Your task to perform on an android device: set default search engine in the chrome app Image 0: 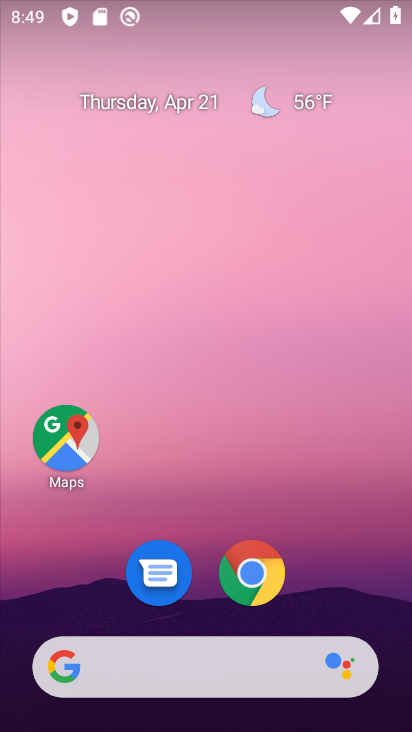
Step 0: click (260, 586)
Your task to perform on an android device: set default search engine in the chrome app Image 1: 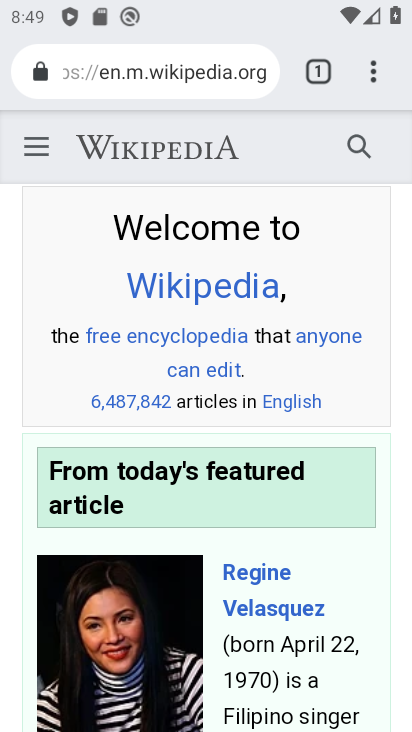
Step 1: click (366, 74)
Your task to perform on an android device: set default search engine in the chrome app Image 2: 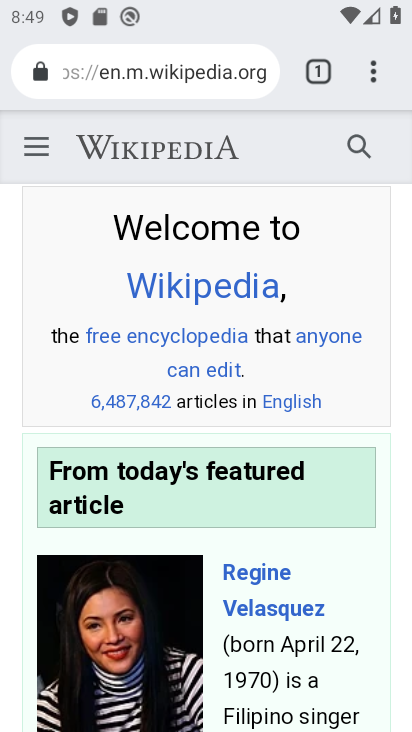
Step 2: click (377, 80)
Your task to perform on an android device: set default search engine in the chrome app Image 3: 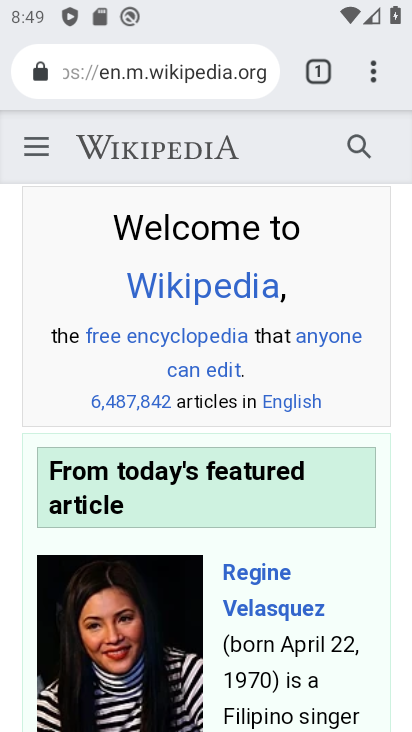
Step 3: click (376, 84)
Your task to perform on an android device: set default search engine in the chrome app Image 4: 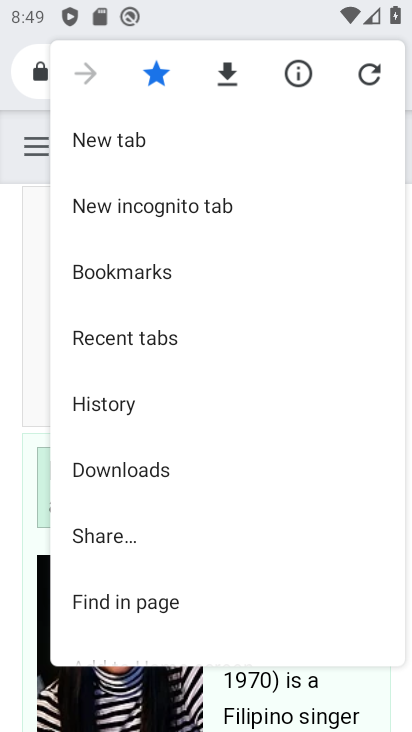
Step 4: drag from (186, 523) to (187, 144)
Your task to perform on an android device: set default search engine in the chrome app Image 5: 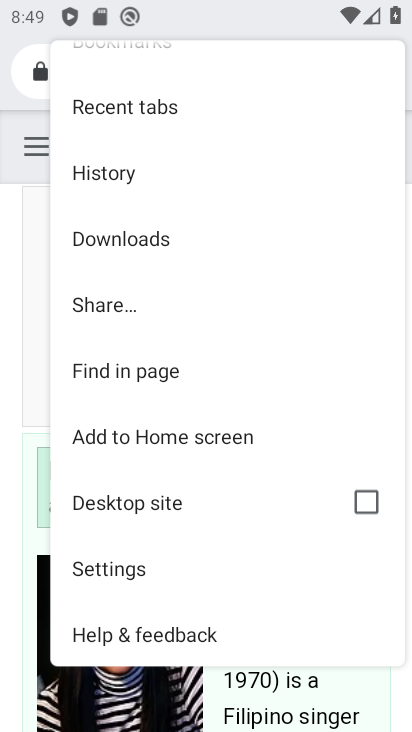
Step 5: click (138, 560)
Your task to perform on an android device: set default search engine in the chrome app Image 6: 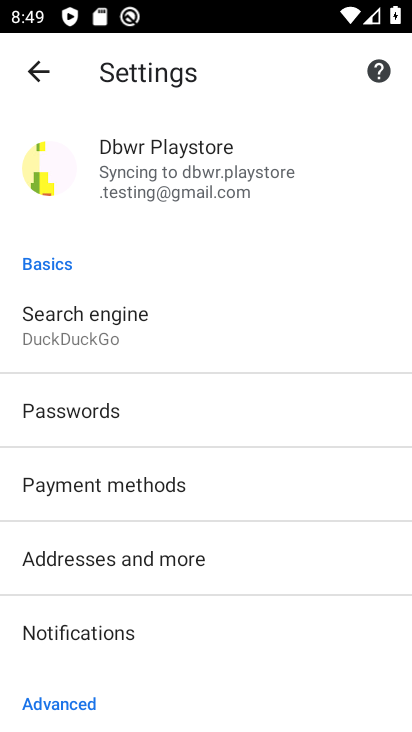
Step 6: click (120, 314)
Your task to perform on an android device: set default search engine in the chrome app Image 7: 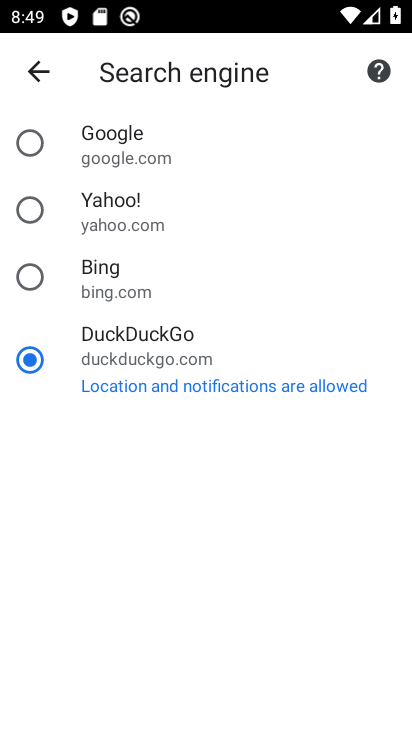
Step 7: click (120, 255)
Your task to perform on an android device: set default search engine in the chrome app Image 8: 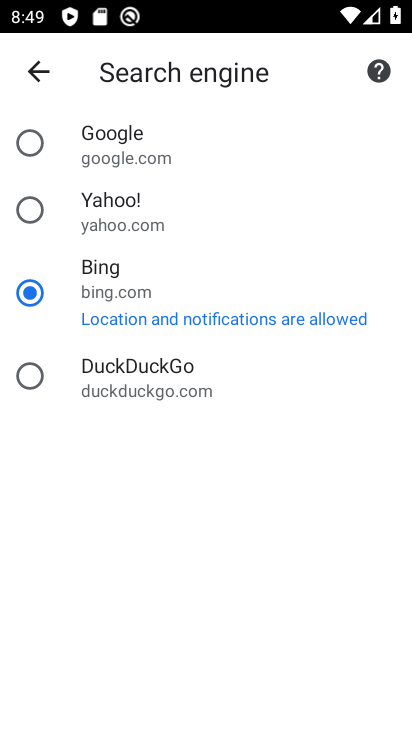
Step 8: task complete